Your task to perform on an android device: refresh tabs in the chrome app Image 0: 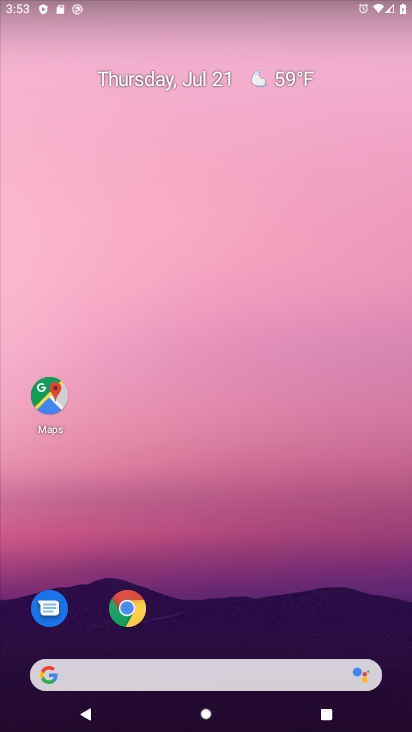
Step 0: drag from (289, 628) to (285, 29)
Your task to perform on an android device: refresh tabs in the chrome app Image 1: 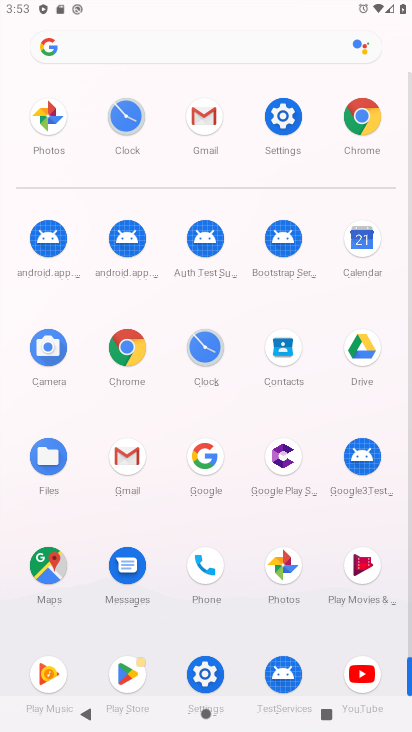
Step 1: click (125, 350)
Your task to perform on an android device: refresh tabs in the chrome app Image 2: 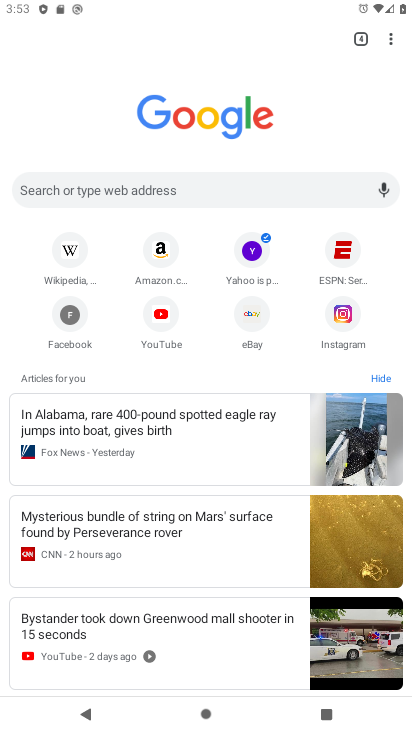
Step 2: click (391, 38)
Your task to perform on an android device: refresh tabs in the chrome app Image 3: 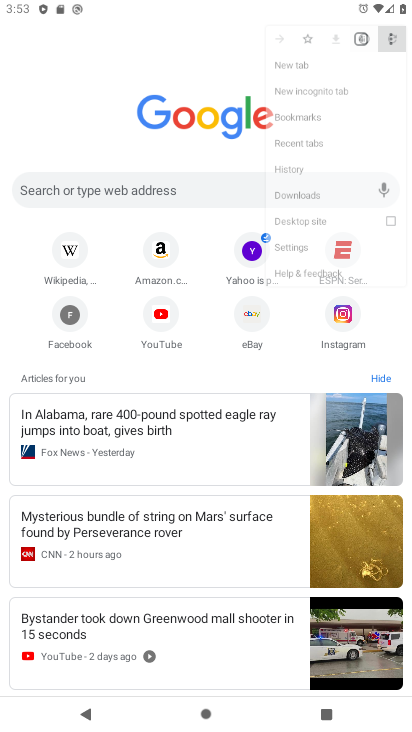
Step 3: click (394, 48)
Your task to perform on an android device: refresh tabs in the chrome app Image 4: 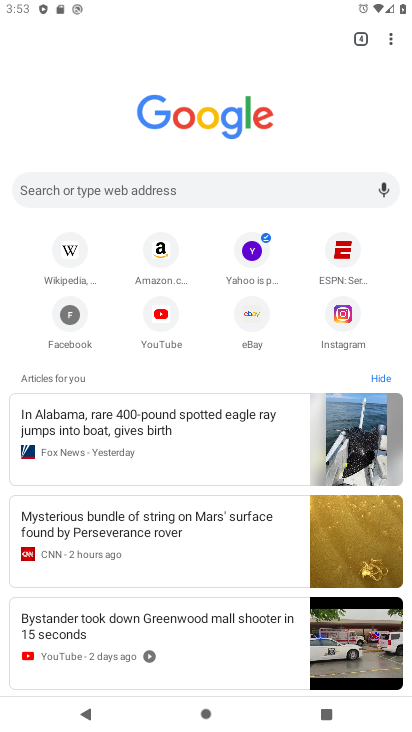
Step 4: task complete